Your task to perform on an android device: turn on the 24-hour format for clock Image 0: 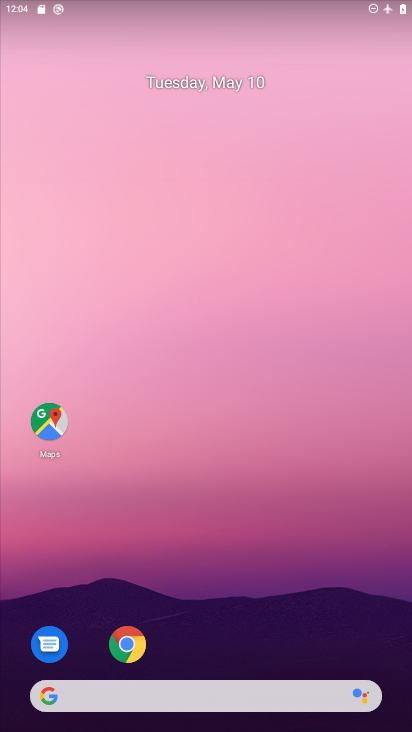
Step 0: drag from (182, 508) to (189, 179)
Your task to perform on an android device: turn on the 24-hour format for clock Image 1: 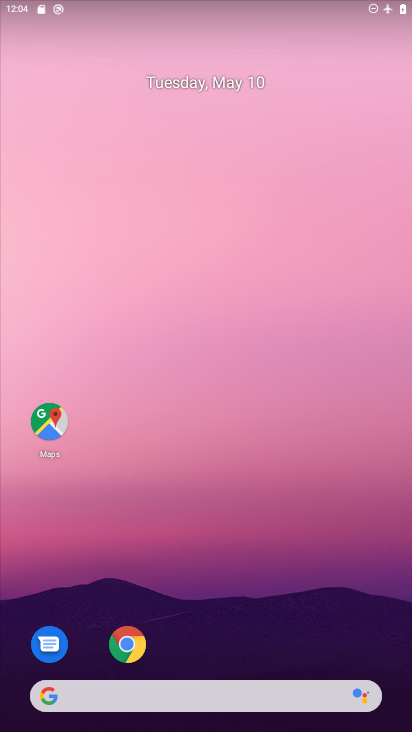
Step 1: drag from (200, 634) to (201, 191)
Your task to perform on an android device: turn on the 24-hour format for clock Image 2: 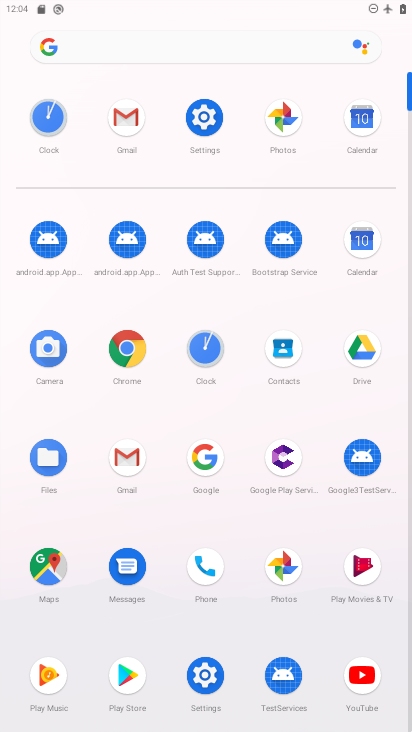
Step 2: click (60, 125)
Your task to perform on an android device: turn on the 24-hour format for clock Image 3: 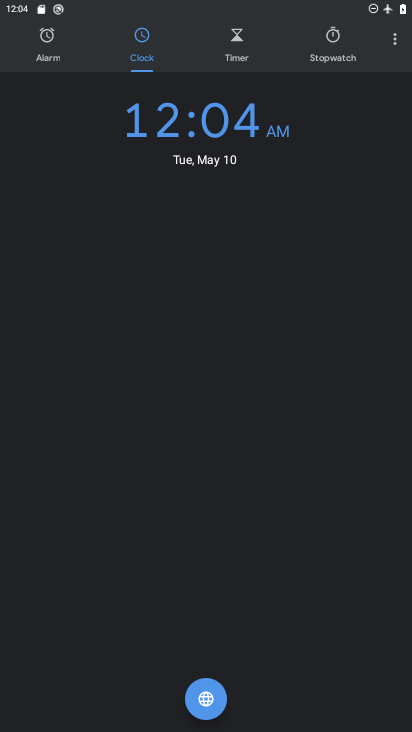
Step 3: click (389, 47)
Your task to perform on an android device: turn on the 24-hour format for clock Image 4: 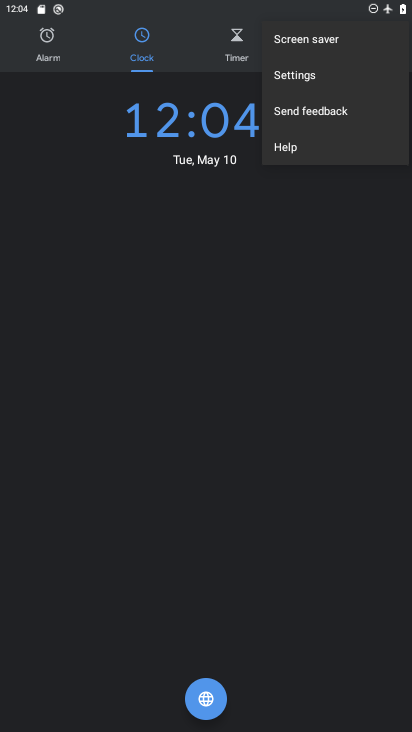
Step 4: click (282, 84)
Your task to perform on an android device: turn on the 24-hour format for clock Image 5: 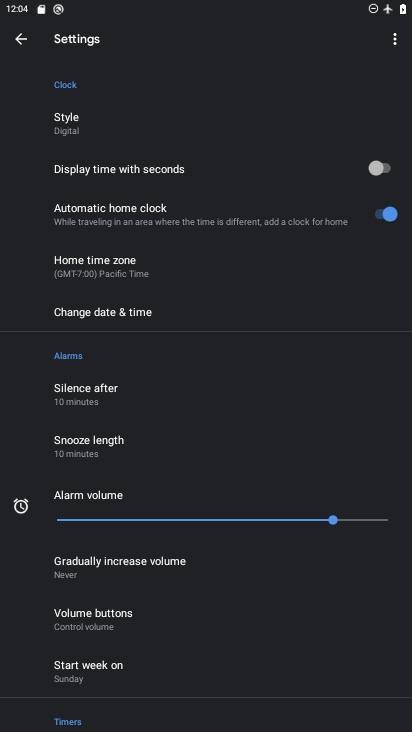
Step 5: click (118, 314)
Your task to perform on an android device: turn on the 24-hour format for clock Image 6: 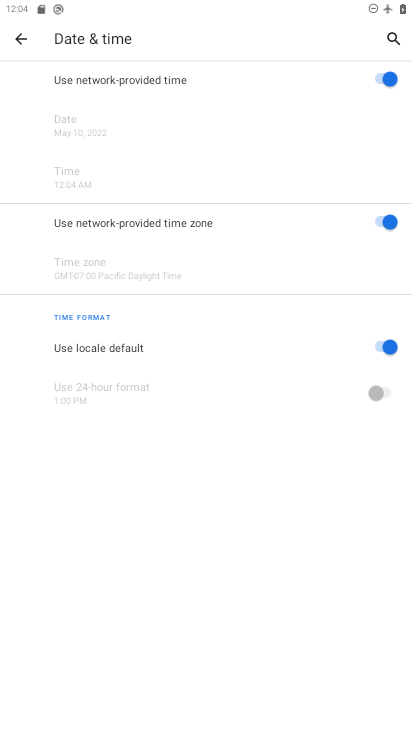
Step 6: click (369, 342)
Your task to perform on an android device: turn on the 24-hour format for clock Image 7: 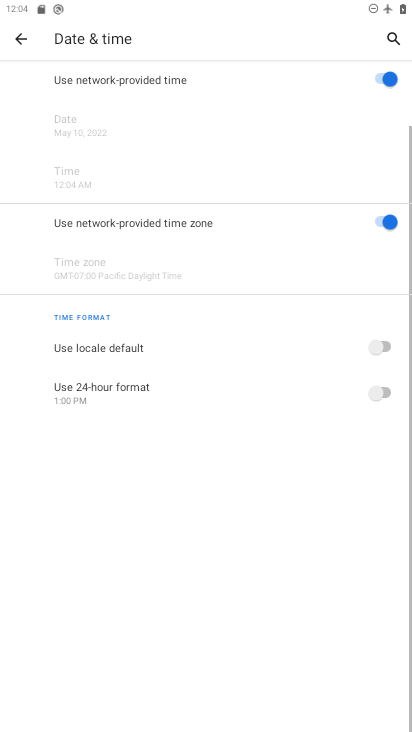
Step 7: click (386, 396)
Your task to perform on an android device: turn on the 24-hour format for clock Image 8: 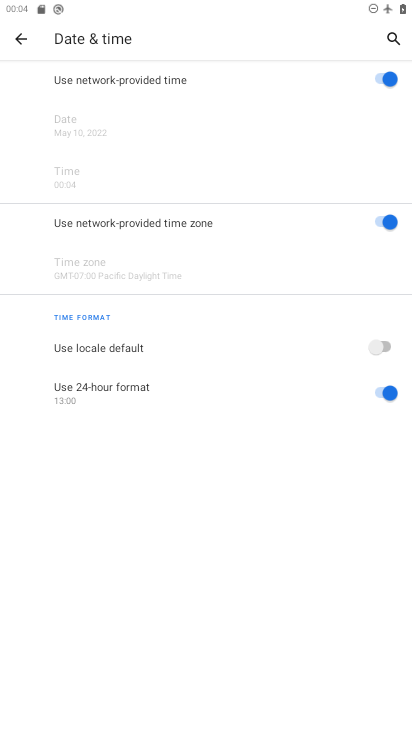
Step 8: task complete